Your task to perform on an android device: Turn on the flashlight Image 0: 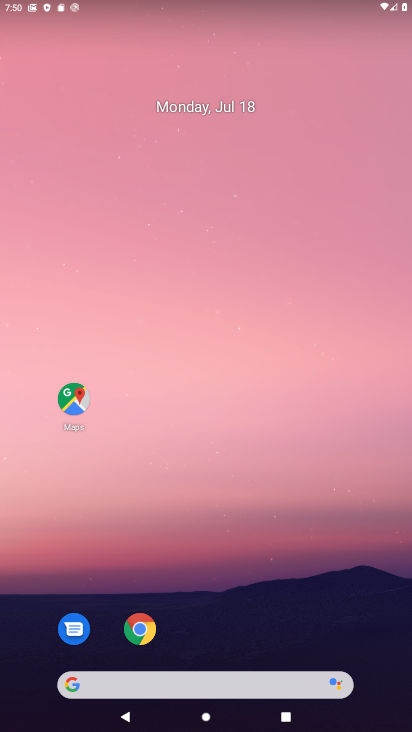
Step 0: drag from (330, 5) to (197, 445)
Your task to perform on an android device: Turn on the flashlight Image 1: 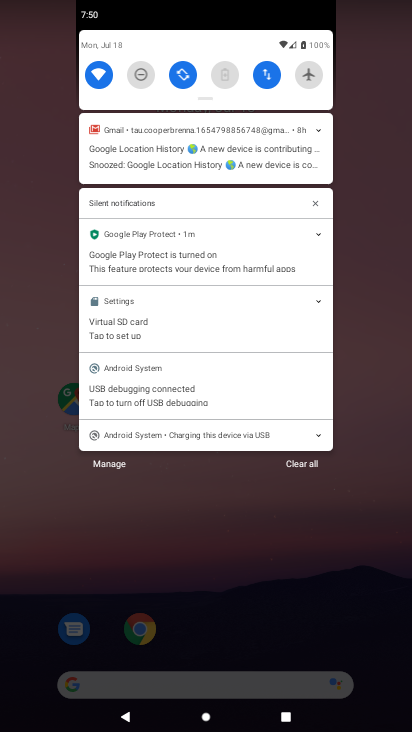
Step 1: drag from (212, 98) to (83, 537)
Your task to perform on an android device: Turn on the flashlight Image 2: 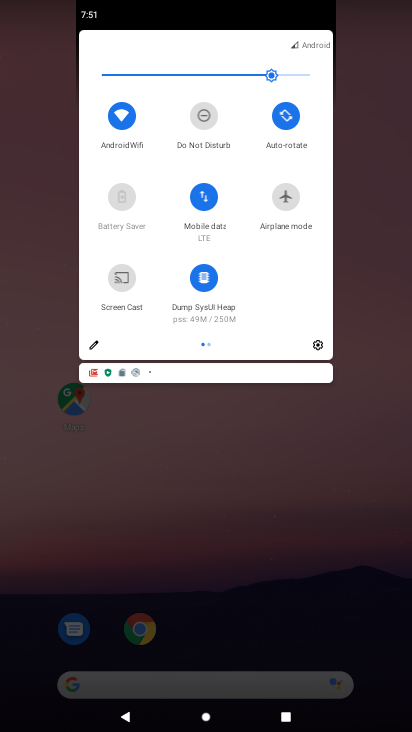
Step 2: click (96, 345)
Your task to perform on an android device: Turn on the flashlight Image 3: 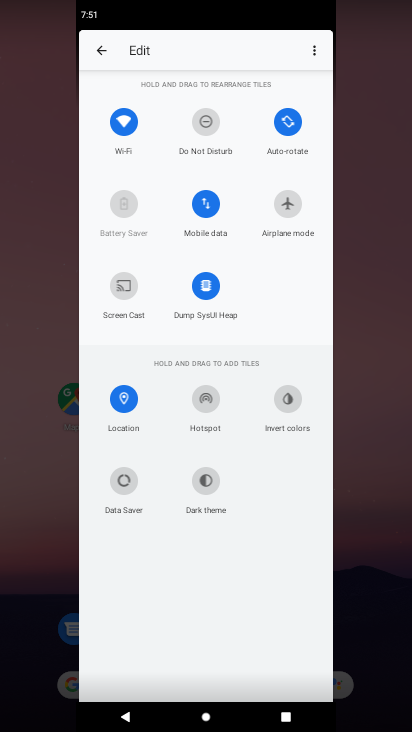
Step 3: task complete